Your task to perform on an android device: Show me the alarms in the clock app Image 0: 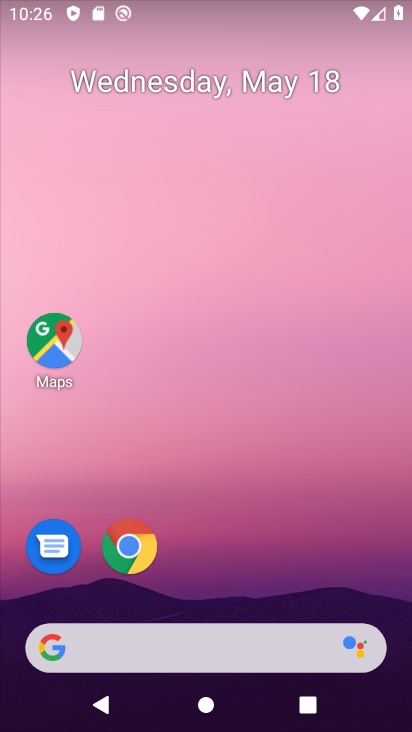
Step 0: drag from (227, 723) to (227, 152)
Your task to perform on an android device: Show me the alarms in the clock app Image 1: 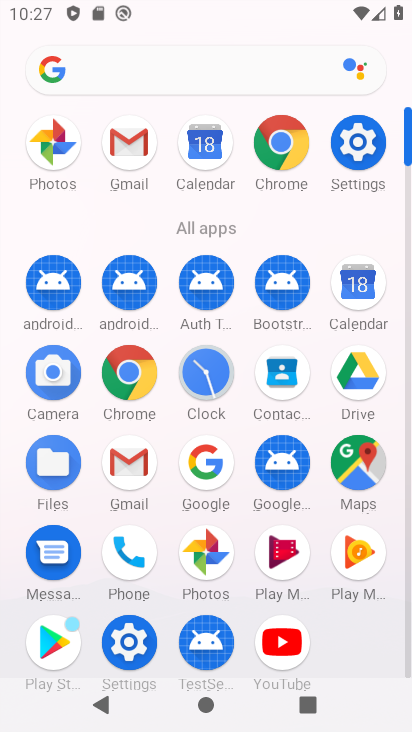
Step 1: click (205, 370)
Your task to perform on an android device: Show me the alarms in the clock app Image 2: 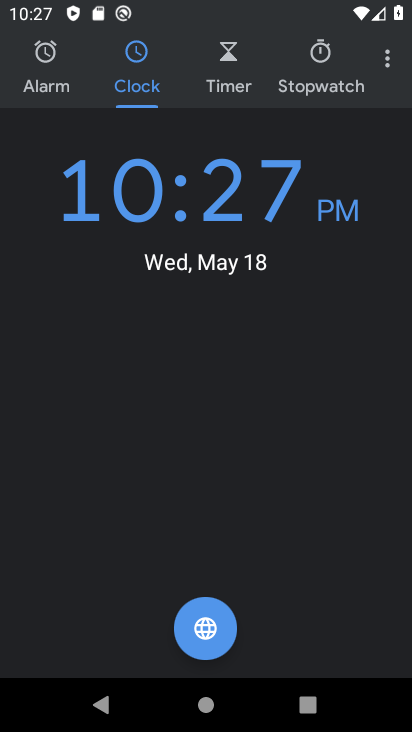
Step 2: click (38, 55)
Your task to perform on an android device: Show me the alarms in the clock app Image 3: 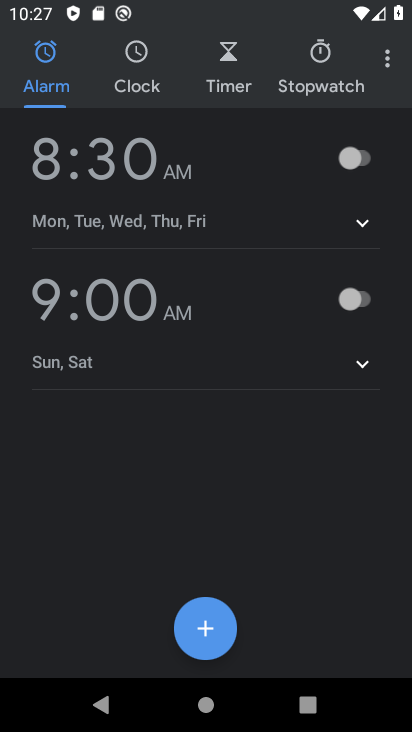
Step 3: task complete